Your task to perform on an android device: turn on javascript in the chrome app Image 0: 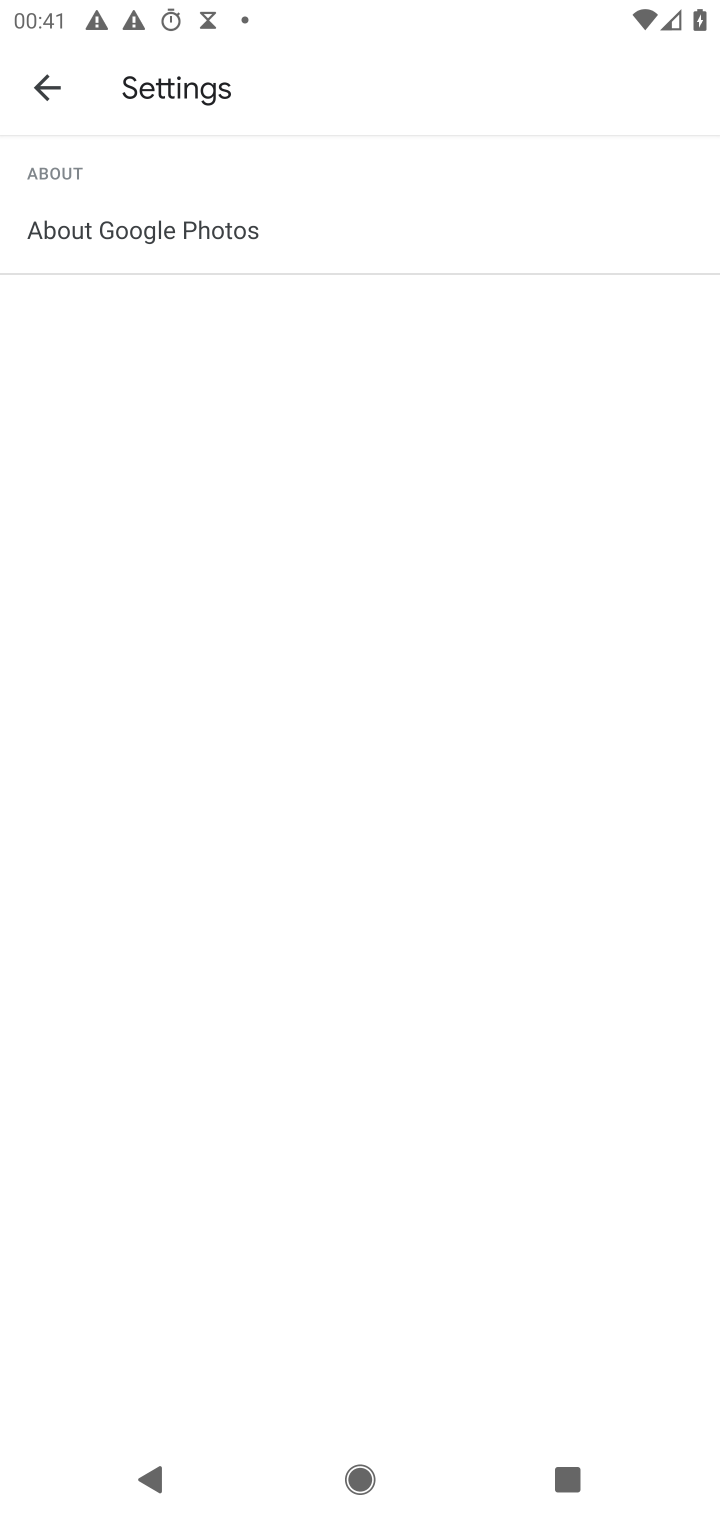
Step 0: press home button
Your task to perform on an android device: turn on javascript in the chrome app Image 1: 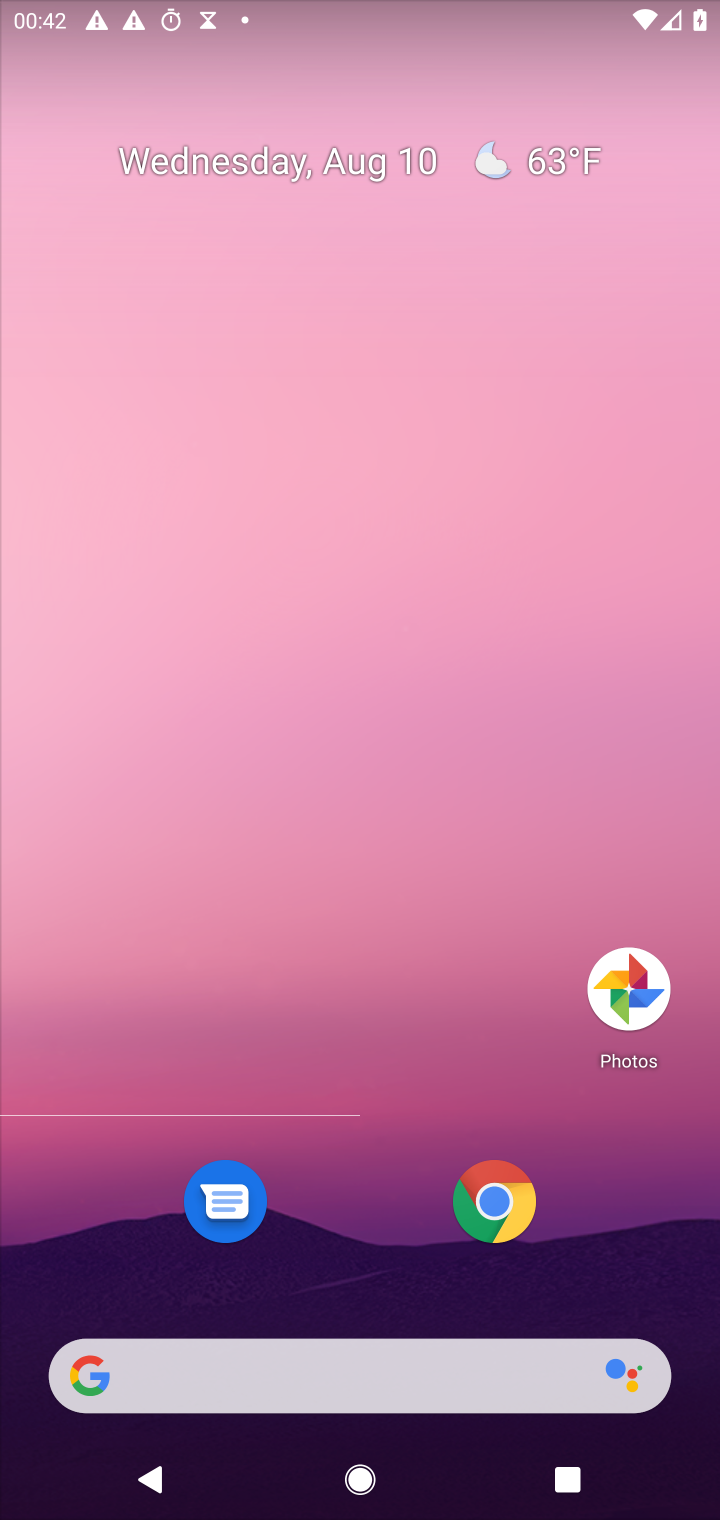
Step 1: click (513, 1211)
Your task to perform on an android device: turn on javascript in the chrome app Image 2: 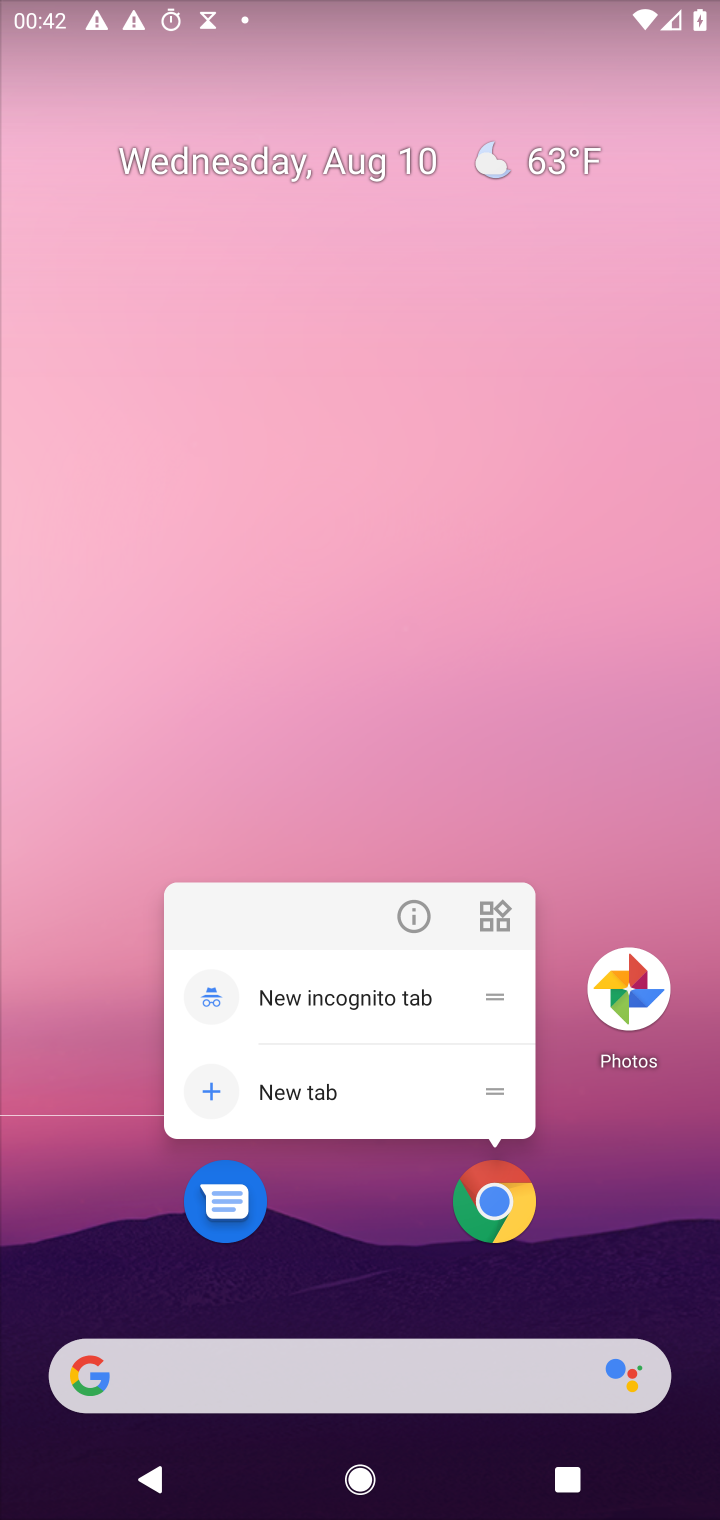
Step 2: click (508, 1192)
Your task to perform on an android device: turn on javascript in the chrome app Image 3: 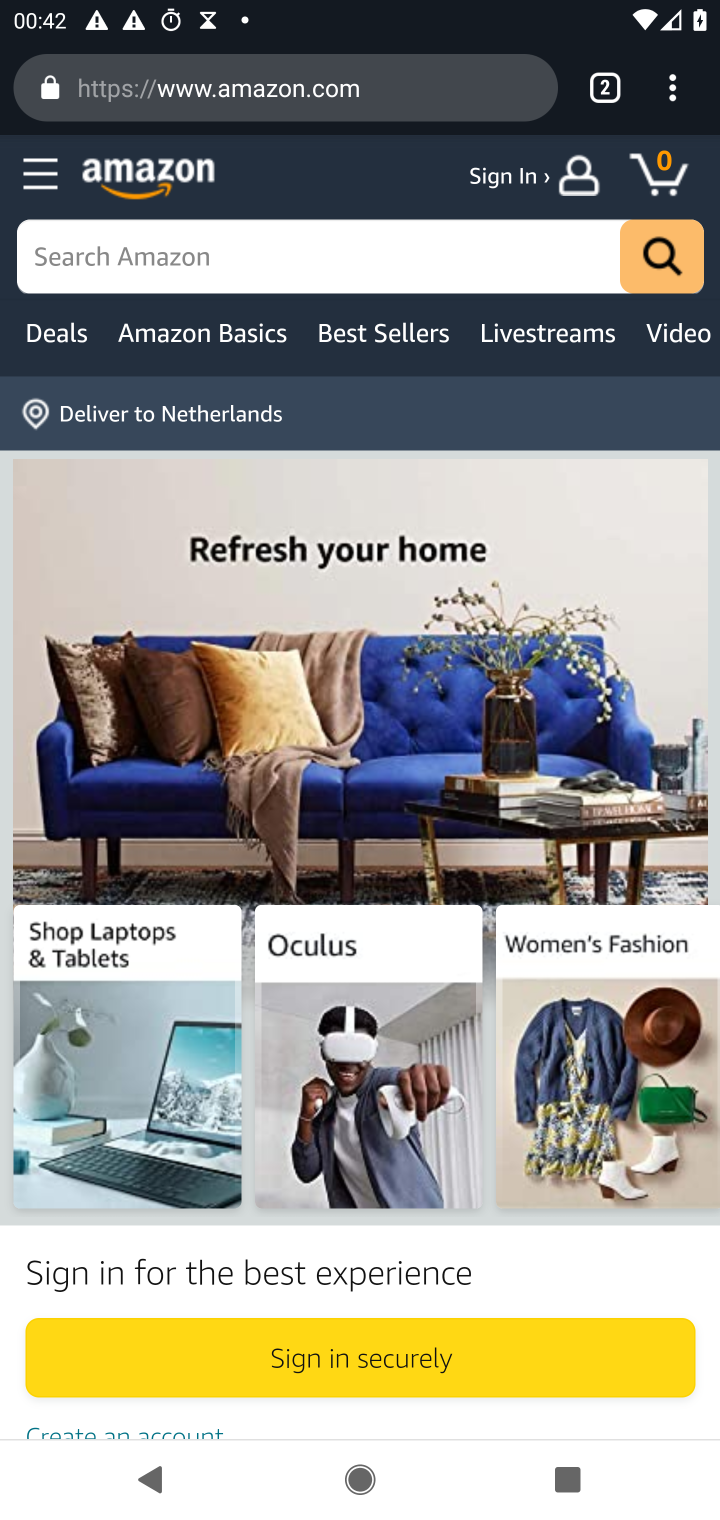
Step 3: drag from (676, 100) to (390, 1057)
Your task to perform on an android device: turn on javascript in the chrome app Image 4: 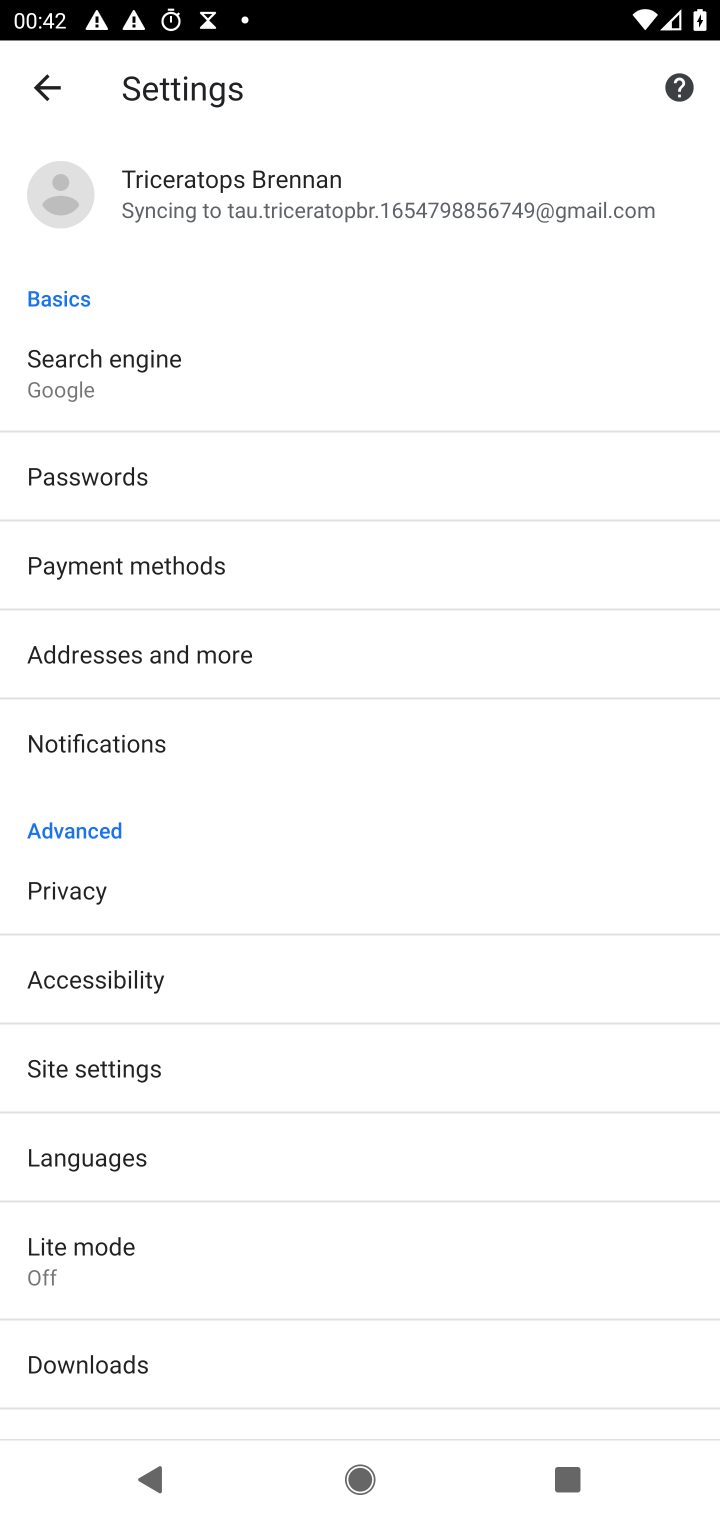
Step 4: click (154, 1070)
Your task to perform on an android device: turn on javascript in the chrome app Image 5: 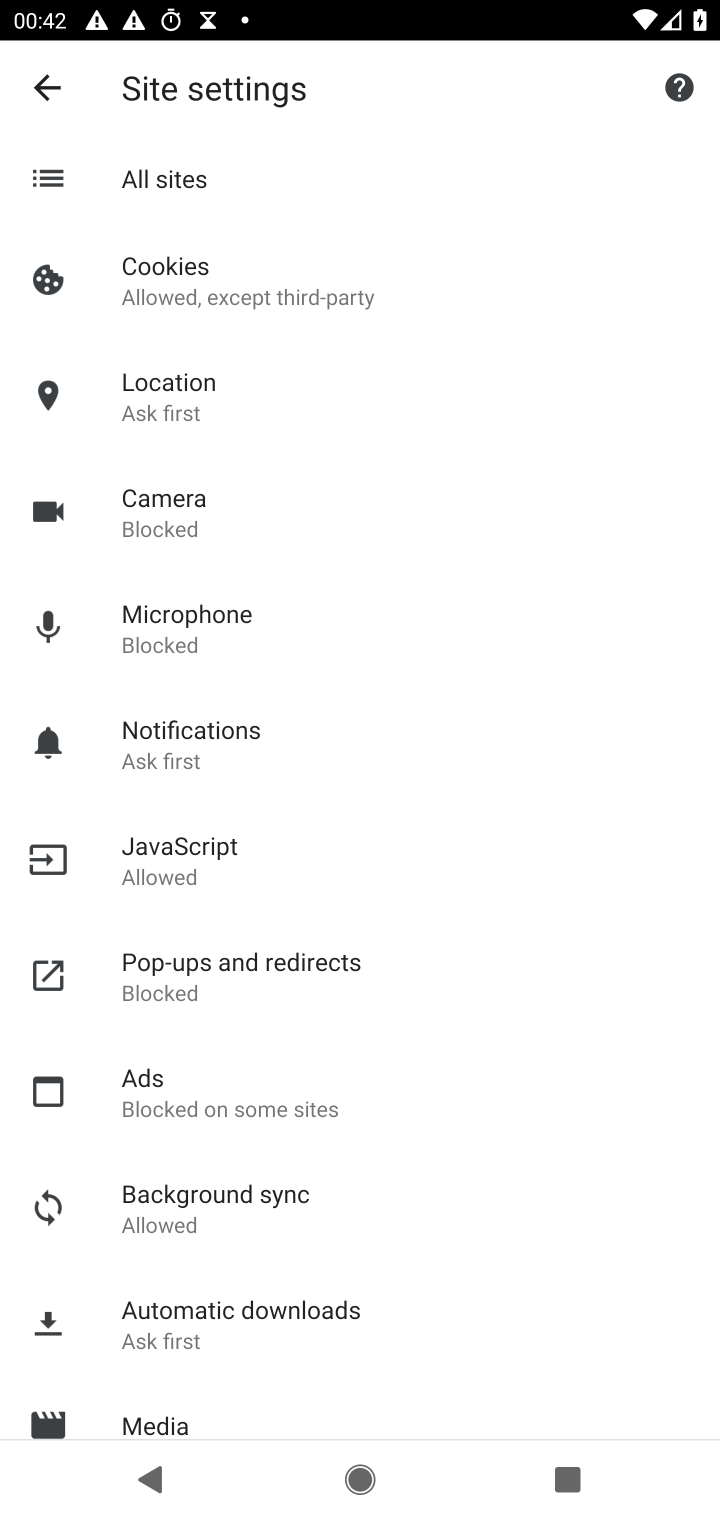
Step 5: click (167, 855)
Your task to perform on an android device: turn on javascript in the chrome app Image 6: 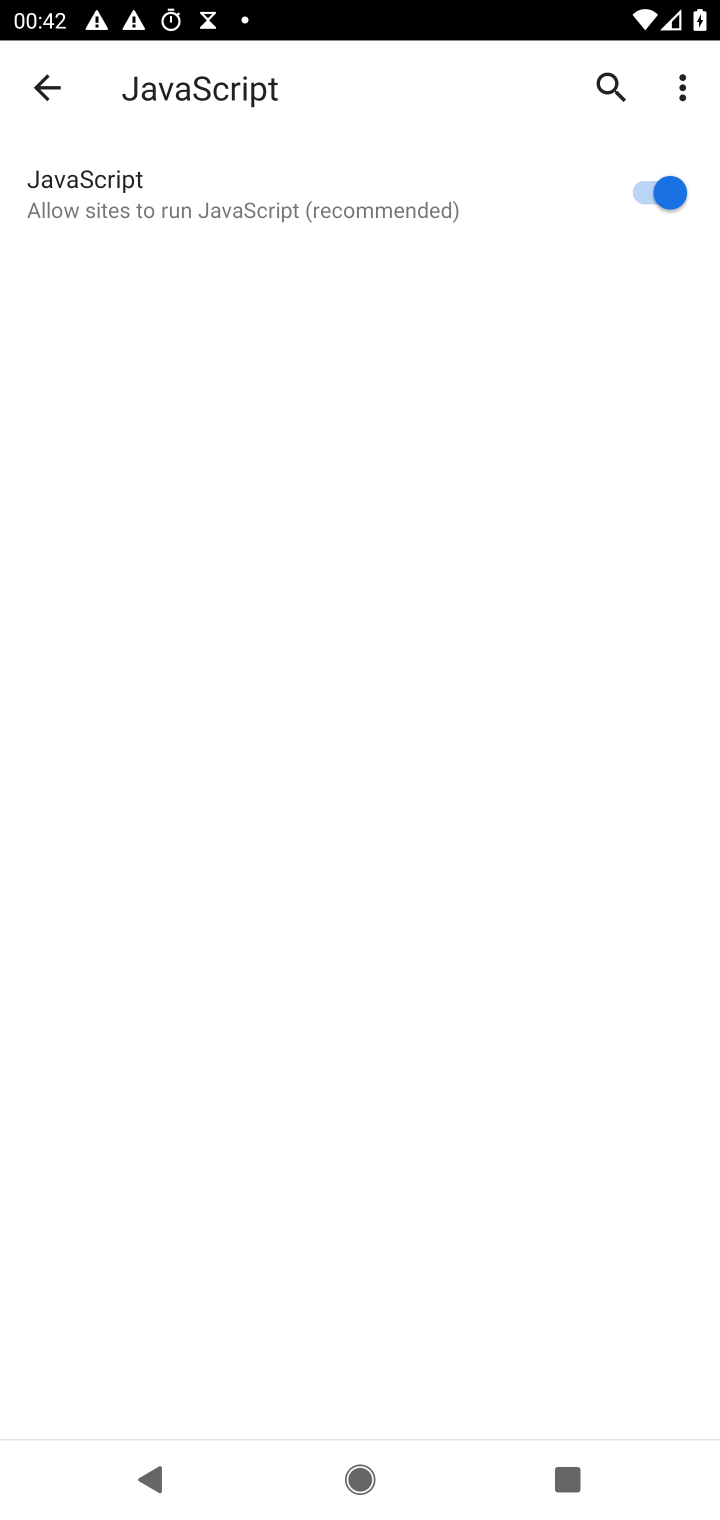
Step 6: task complete